Your task to perform on an android device: Go to ESPN.com Image 0: 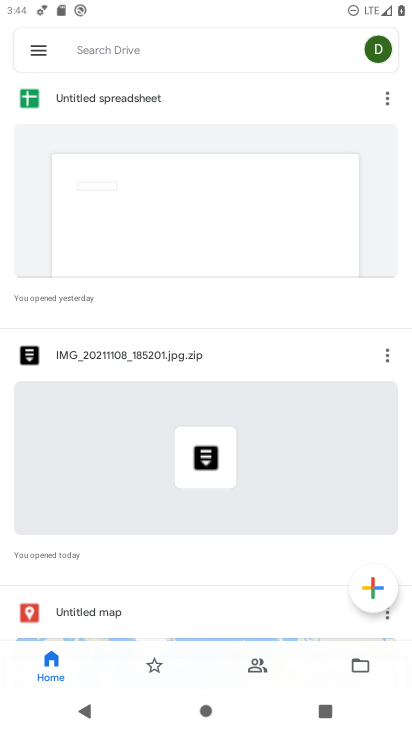
Step 0: press home button
Your task to perform on an android device: Go to ESPN.com Image 1: 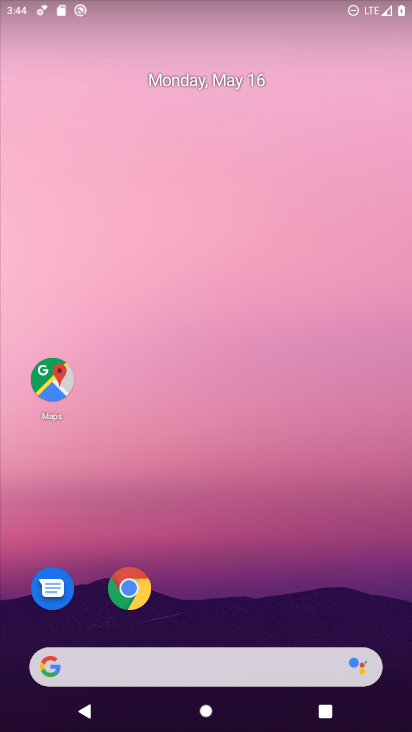
Step 1: click (139, 595)
Your task to perform on an android device: Go to ESPN.com Image 2: 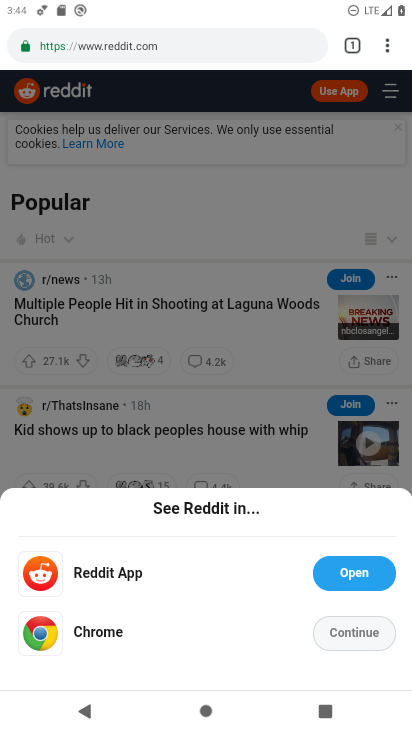
Step 2: click (104, 47)
Your task to perform on an android device: Go to ESPN.com Image 3: 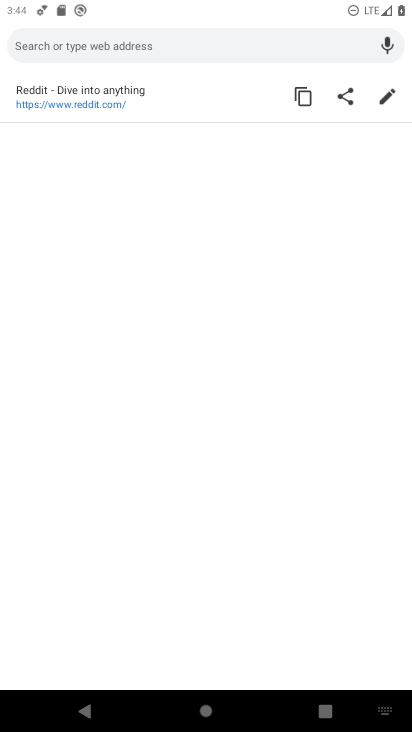
Step 3: type "espn.com"
Your task to perform on an android device: Go to ESPN.com Image 4: 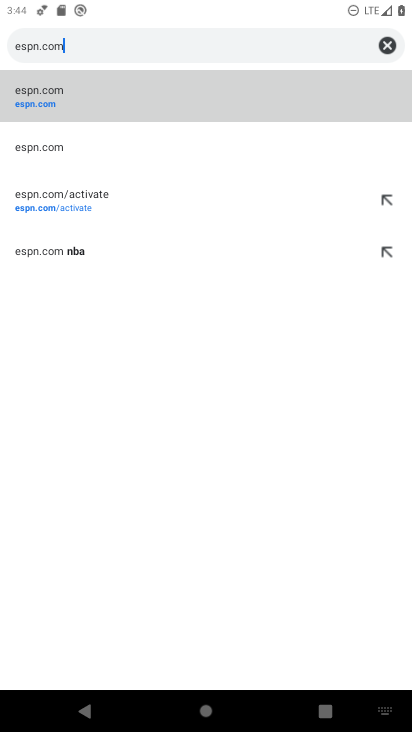
Step 4: click (33, 105)
Your task to perform on an android device: Go to ESPN.com Image 5: 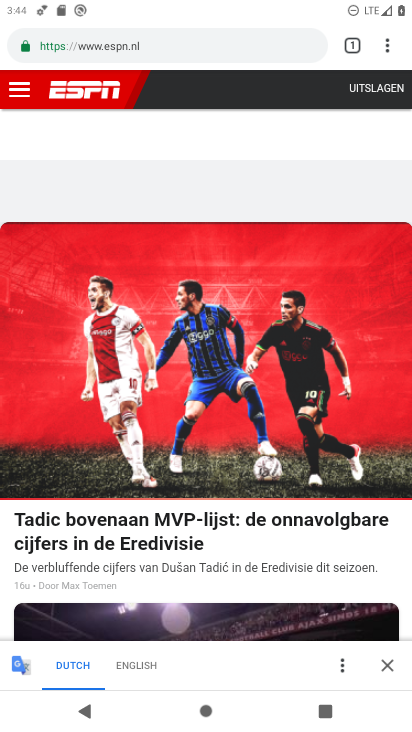
Step 5: task complete